Your task to perform on an android device: read, delete, or share a saved page in the chrome app Image 0: 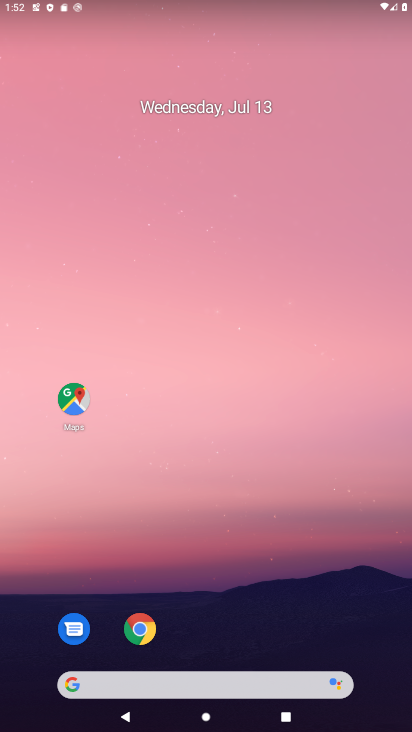
Step 0: click (142, 627)
Your task to perform on an android device: read, delete, or share a saved page in the chrome app Image 1: 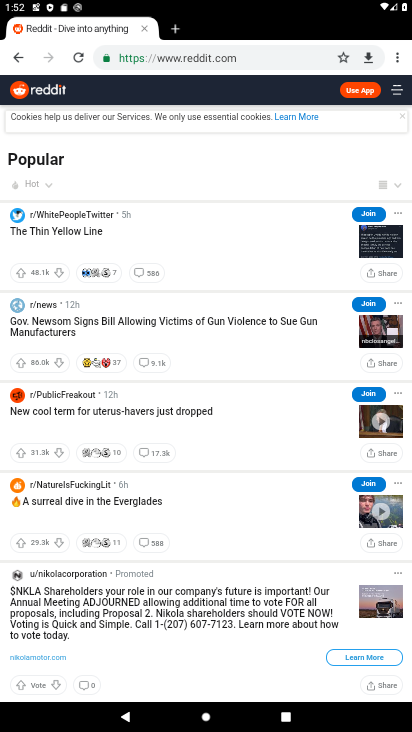
Step 1: click (396, 57)
Your task to perform on an android device: read, delete, or share a saved page in the chrome app Image 2: 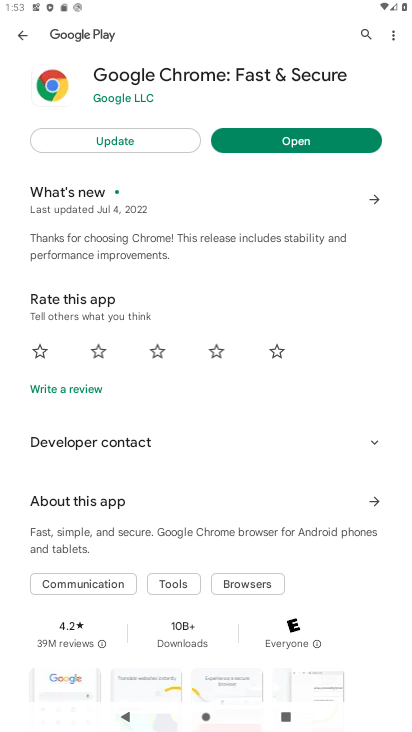
Step 2: click (164, 143)
Your task to perform on an android device: read, delete, or share a saved page in the chrome app Image 3: 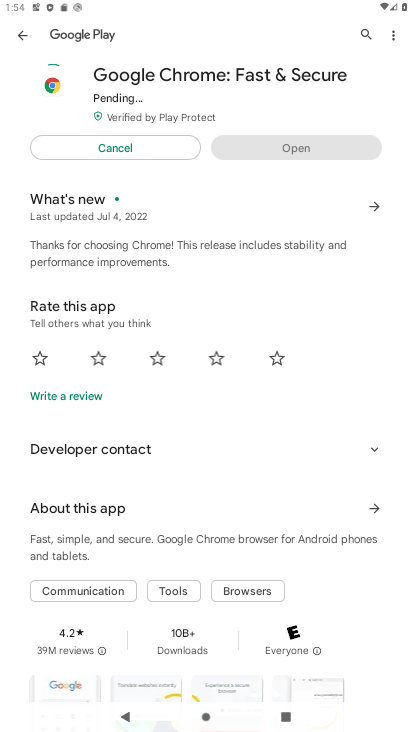
Step 3: press back button
Your task to perform on an android device: read, delete, or share a saved page in the chrome app Image 4: 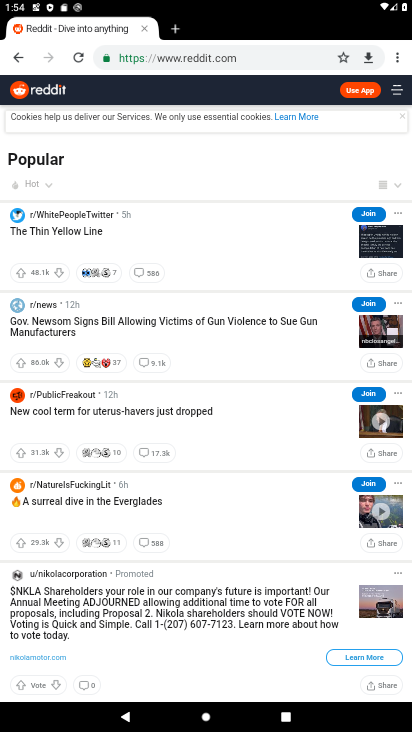
Step 4: click (397, 57)
Your task to perform on an android device: read, delete, or share a saved page in the chrome app Image 5: 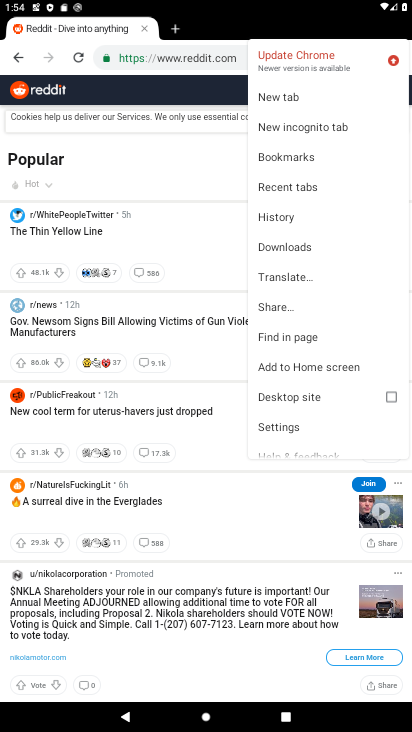
Step 5: click (289, 243)
Your task to perform on an android device: read, delete, or share a saved page in the chrome app Image 6: 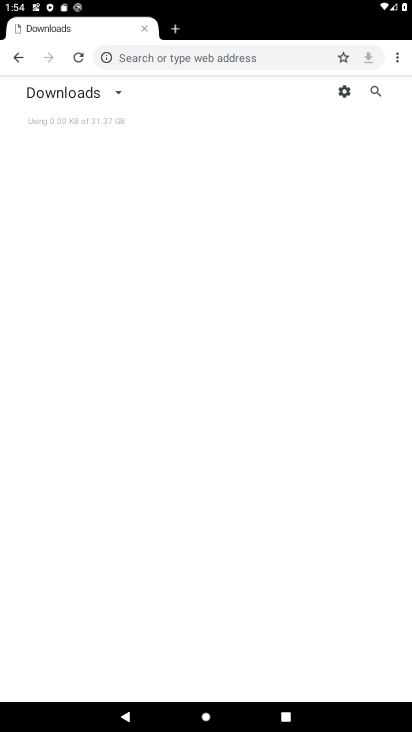
Step 6: click (115, 93)
Your task to perform on an android device: read, delete, or share a saved page in the chrome app Image 7: 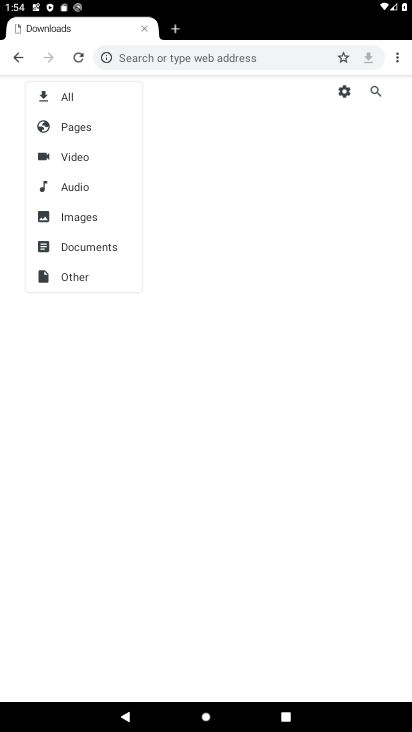
Step 7: click (68, 100)
Your task to perform on an android device: read, delete, or share a saved page in the chrome app Image 8: 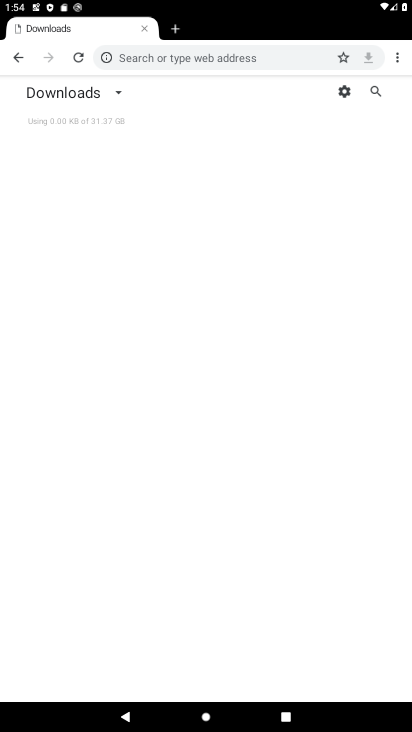
Step 8: task complete